Your task to perform on an android device: Search for sushi restaurants on Maps Image 0: 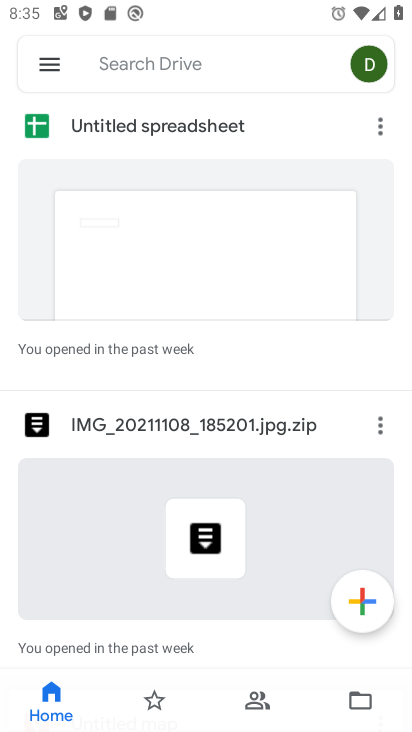
Step 0: press home button
Your task to perform on an android device: Search for sushi restaurants on Maps Image 1: 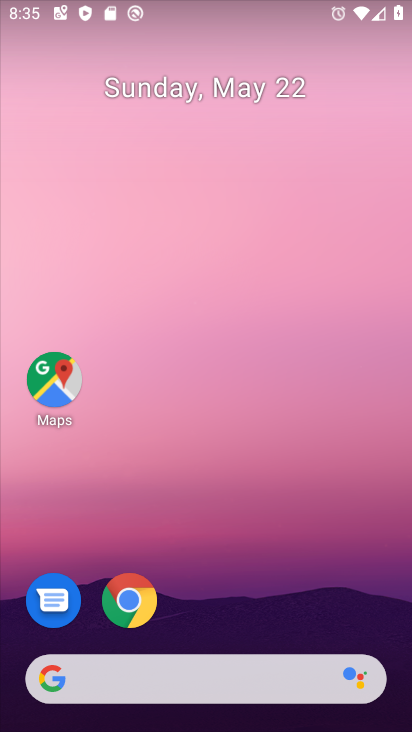
Step 1: click (56, 390)
Your task to perform on an android device: Search for sushi restaurants on Maps Image 2: 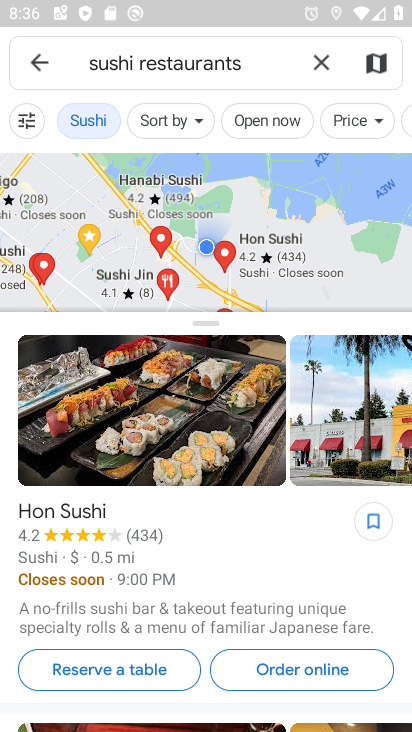
Step 2: task complete